Your task to perform on an android device: Search for pizza restaurants on Maps Image 0: 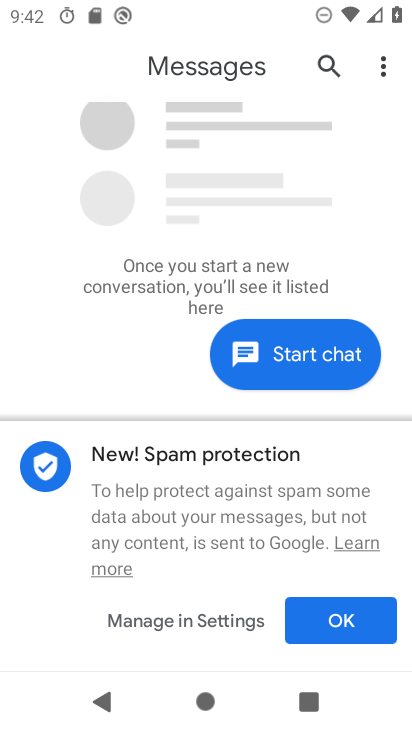
Step 0: press home button
Your task to perform on an android device: Search for pizza restaurants on Maps Image 1: 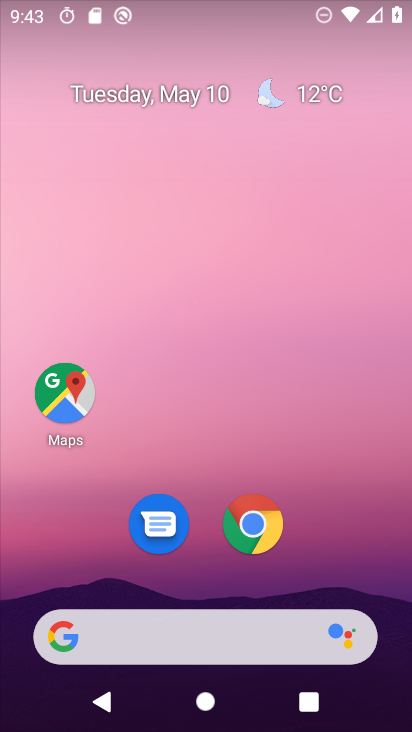
Step 1: click (58, 400)
Your task to perform on an android device: Search for pizza restaurants on Maps Image 2: 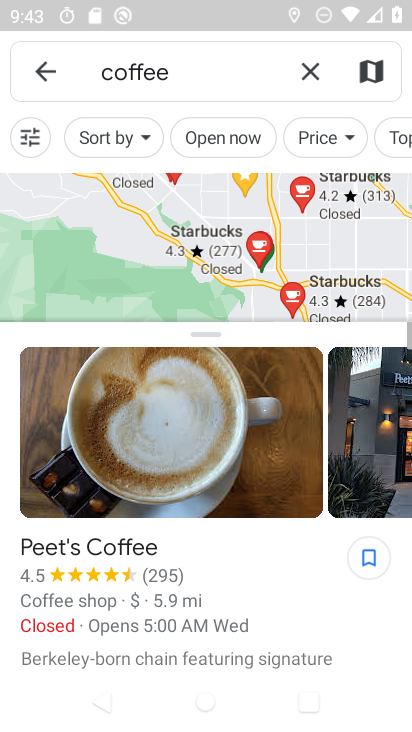
Step 2: click (308, 67)
Your task to perform on an android device: Search for pizza restaurants on Maps Image 3: 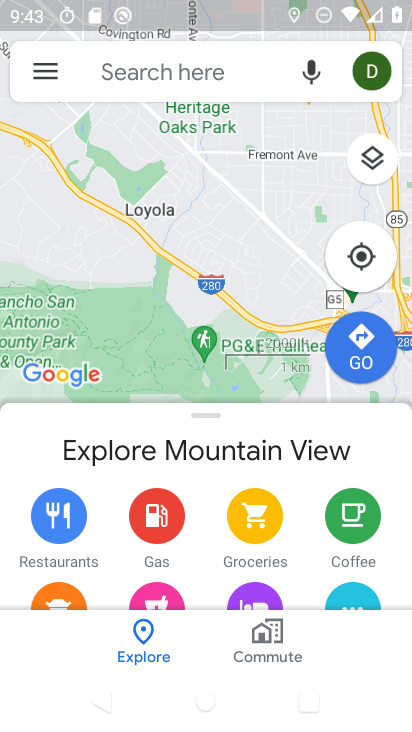
Step 3: click (217, 71)
Your task to perform on an android device: Search for pizza restaurants on Maps Image 4: 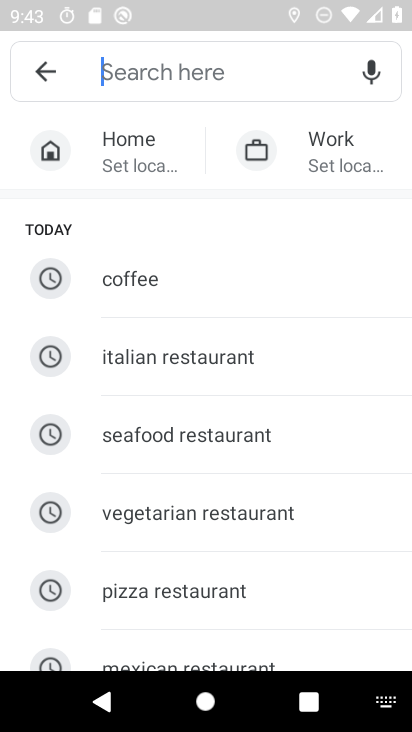
Step 4: click (186, 584)
Your task to perform on an android device: Search for pizza restaurants on Maps Image 5: 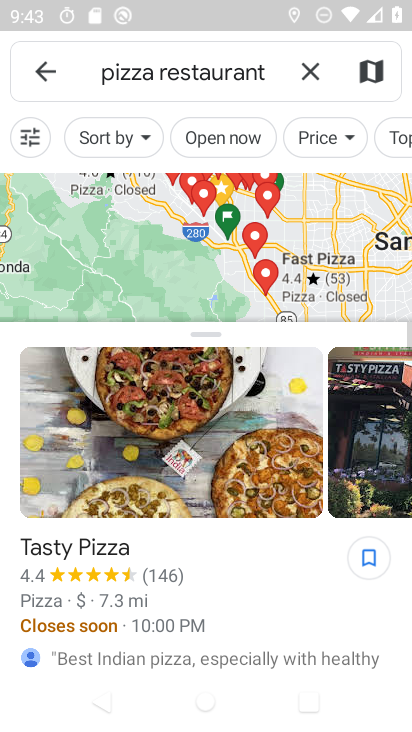
Step 5: task complete